Your task to perform on an android device: Go to location settings Image 0: 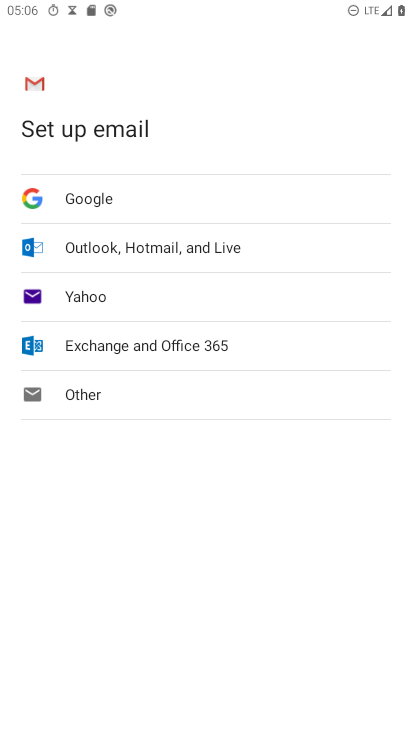
Step 0: press home button
Your task to perform on an android device: Go to location settings Image 1: 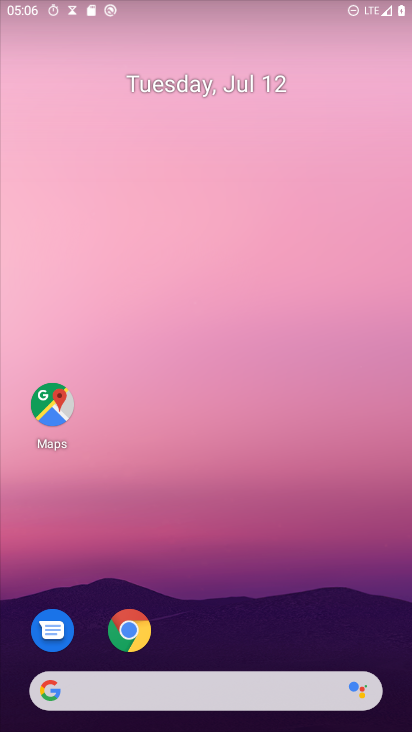
Step 1: drag from (164, 717) to (210, 2)
Your task to perform on an android device: Go to location settings Image 2: 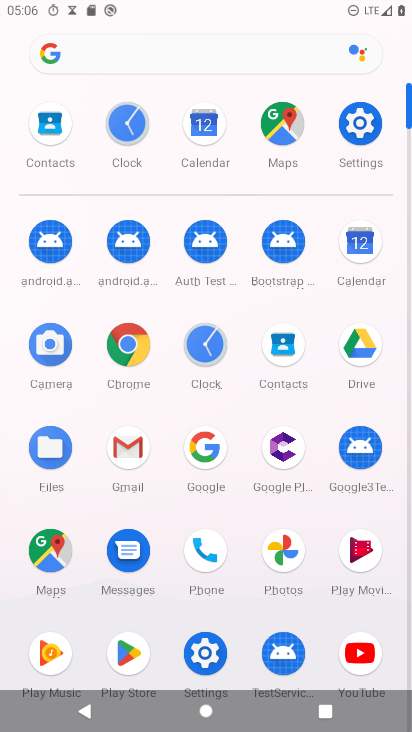
Step 2: click (378, 126)
Your task to perform on an android device: Go to location settings Image 3: 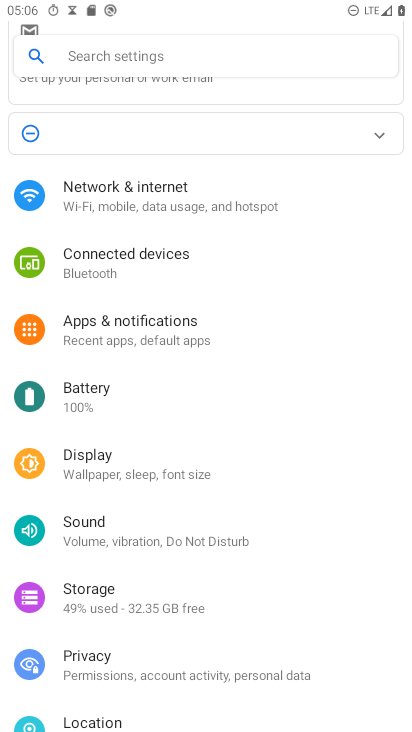
Step 3: click (98, 715)
Your task to perform on an android device: Go to location settings Image 4: 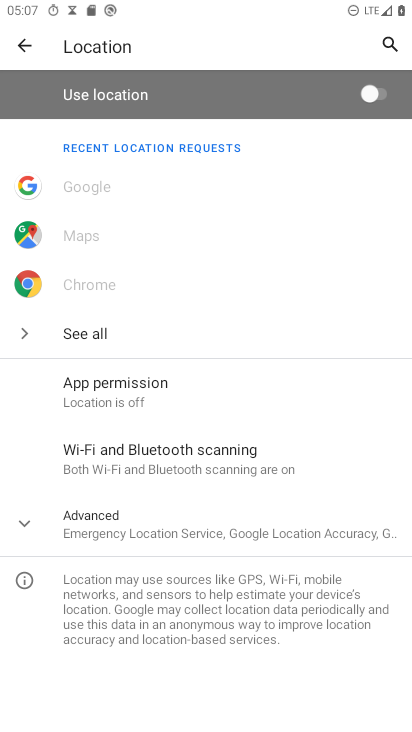
Step 4: task complete